Your task to perform on an android device: choose inbox layout in the gmail app Image 0: 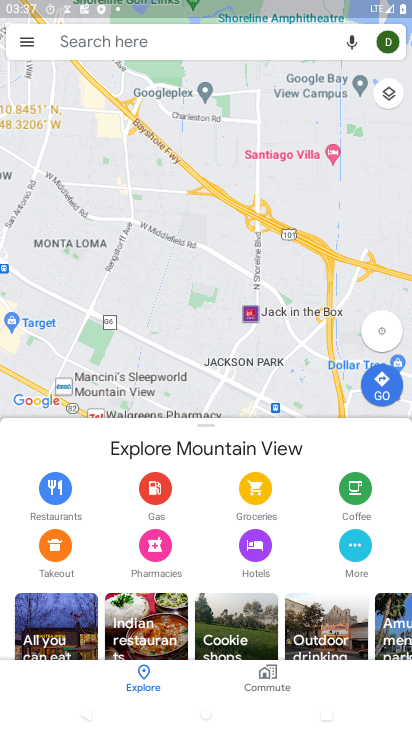
Step 0: press home button
Your task to perform on an android device: choose inbox layout in the gmail app Image 1: 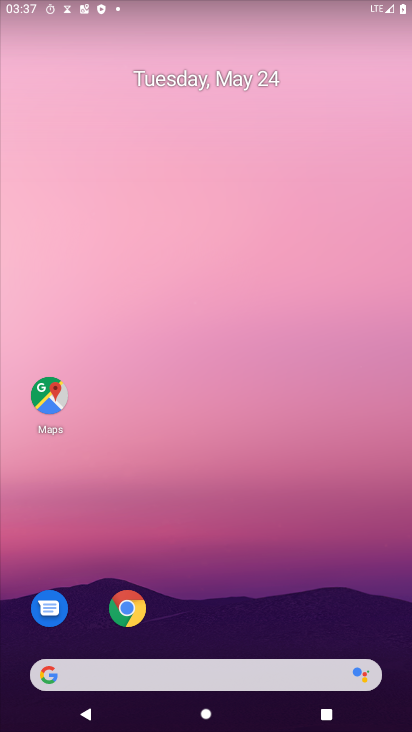
Step 1: drag from (224, 628) to (180, 112)
Your task to perform on an android device: choose inbox layout in the gmail app Image 2: 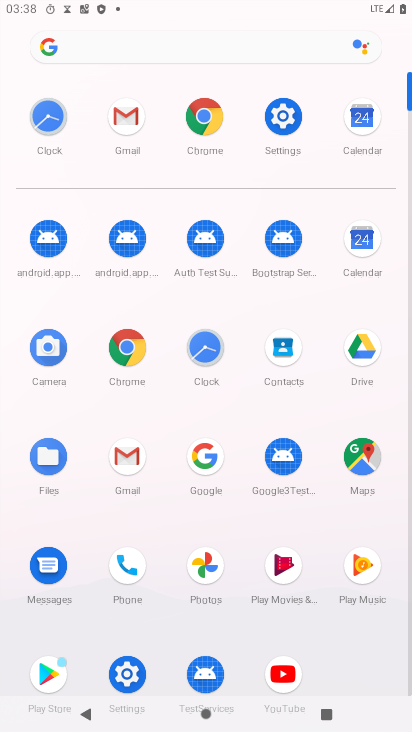
Step 2: click (128, 132)
Your task to perform on an android device: choose inbox layout in the gmail app Image 3: 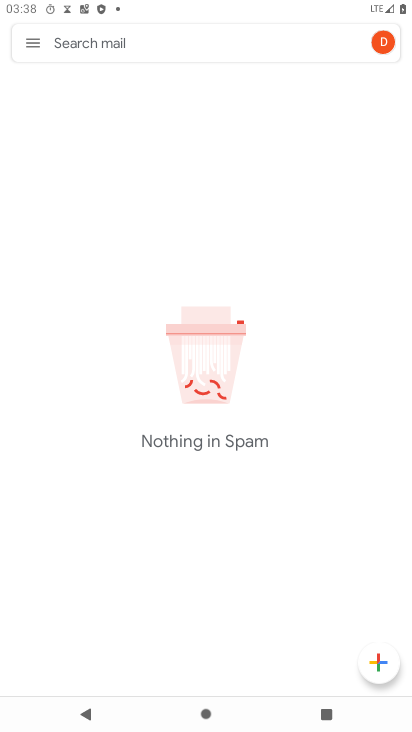
Step 3: click (41, 49)
Your task to perform on an android device: choose inbox layout in the gmail app Image 4: 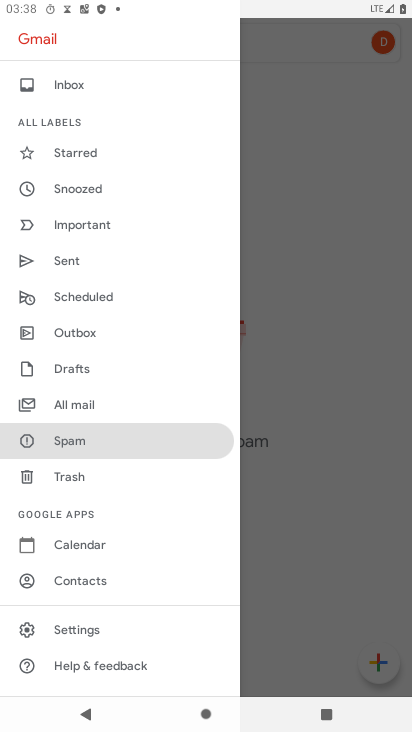
Step 4: click (121, 633)
Your task to perform on an android device: choose inbox layout in the gmail app Image 5: 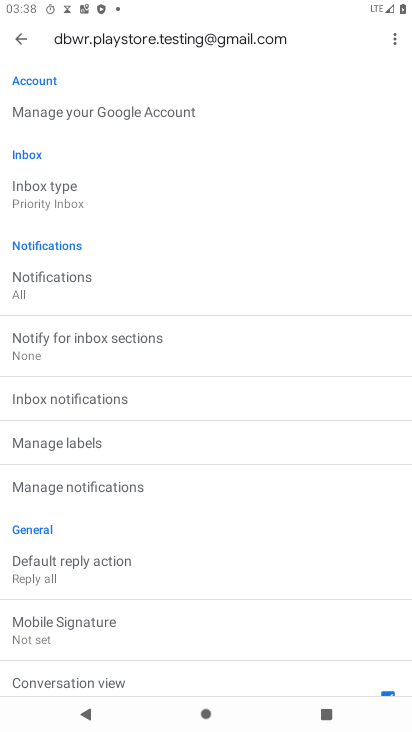
Step 5: click (123, 200)
Your task to perform on an android device: choose inbox layout in the gmail app Image 6: 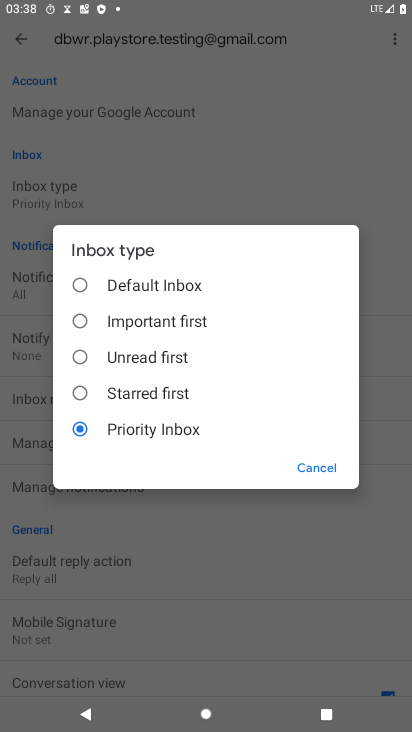
Step 6: click (139, 278)
Your task to perform on an android device: choose inbox layout in the gmail app Image 7: 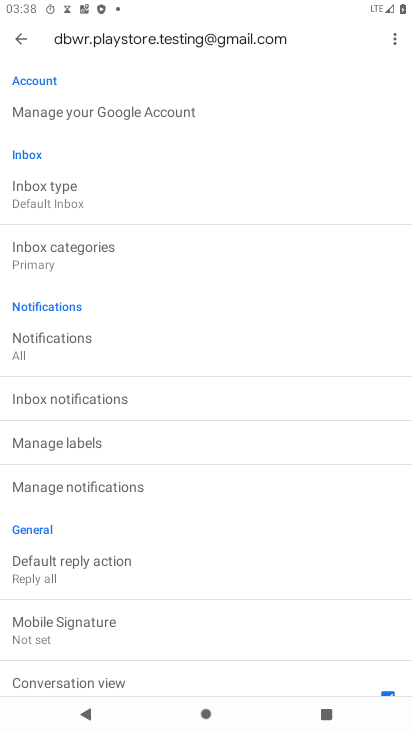
Step 7: task complete